Your task to perform on an android device: Go to Reddit.com Image 0: 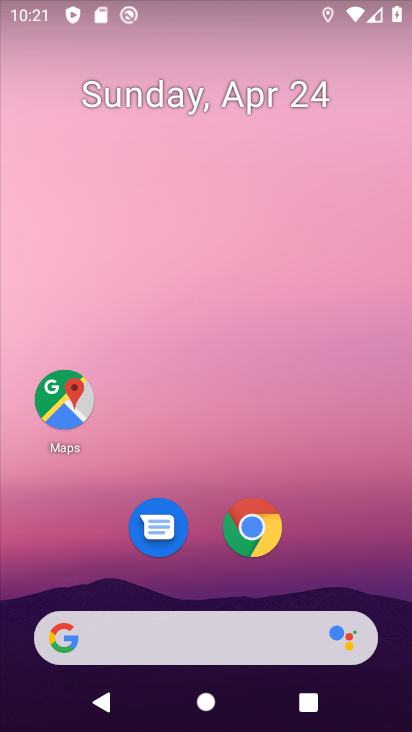
Step 0: click (262, 540)
Your task to perform on an android device: Go to Reddit.com Image 1: 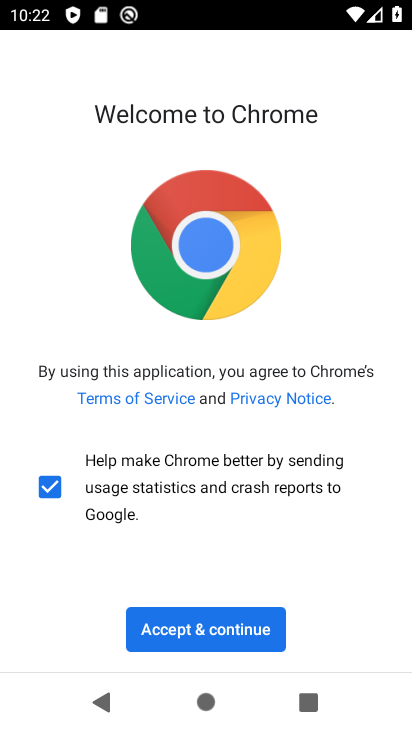
Step 1: click (200, 620)
Your task to perform on an android device: Go to Reddit.com Image 2: 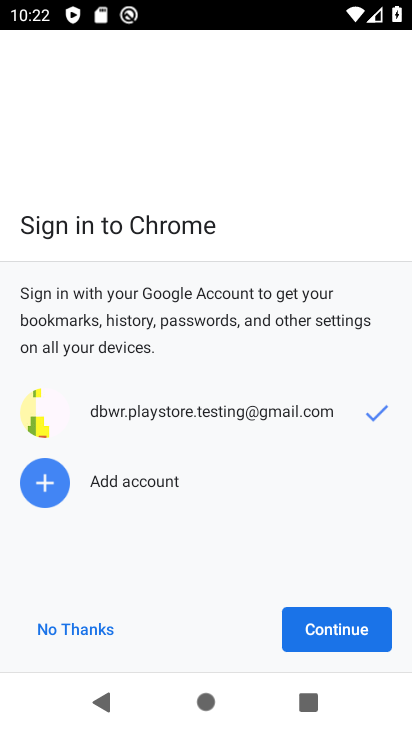
Step 2: click (347, 629)
Your task to perform on an android device: Go to Reddit.com Image 3: 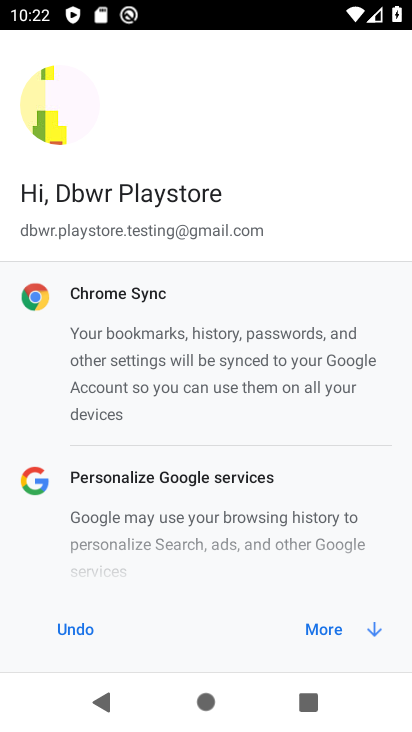
Step 3: click (349, 628)
Your task to perform on an android device: Go to Reddit.com Image 4: 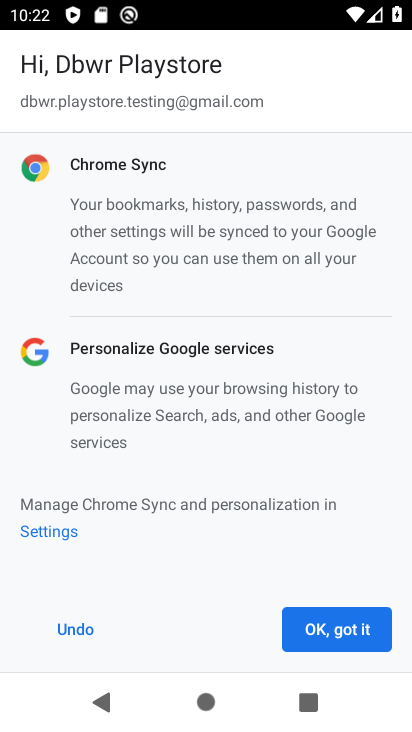
Step 4: click (349, 628)
Your task to perform on an android device: Go to Reddit.com Image 5: 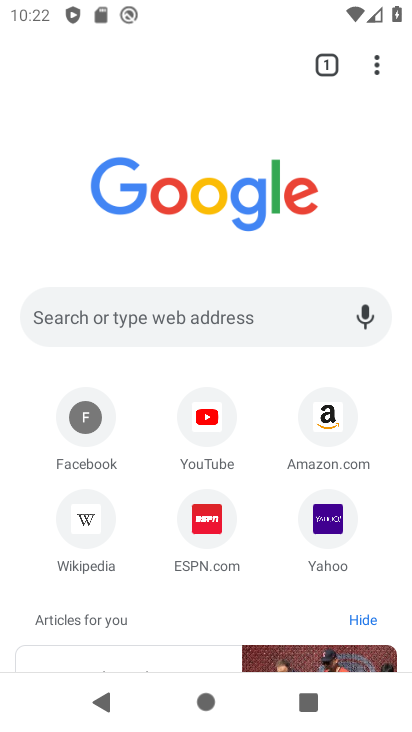
Step 5: click (164, 299)
Your task to perform on an android device: Go to Reddit.com Image 6: 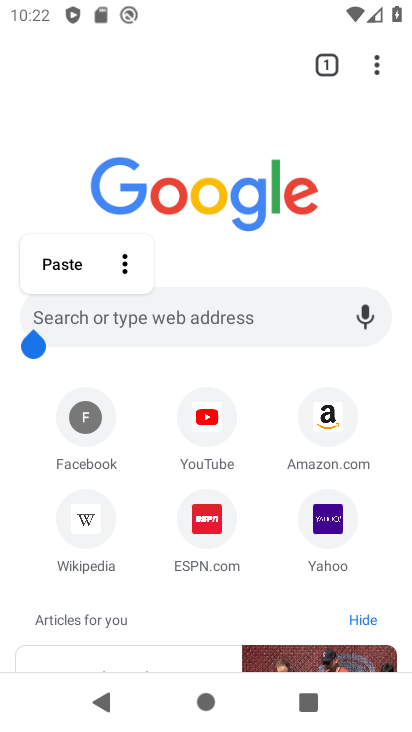
Step 6: click (177, 317)
Your task to perform on an android device: Go to Reddit.com Image 7: 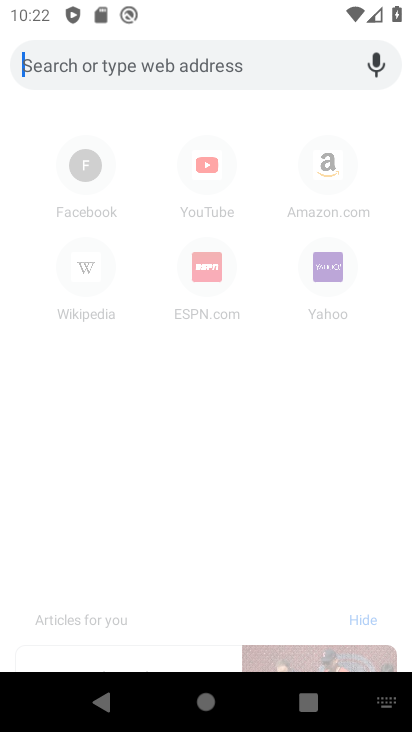
Step 7: type "Reddit.com"
Your task to perform on an android device: Go to Reddit.com Image 8: 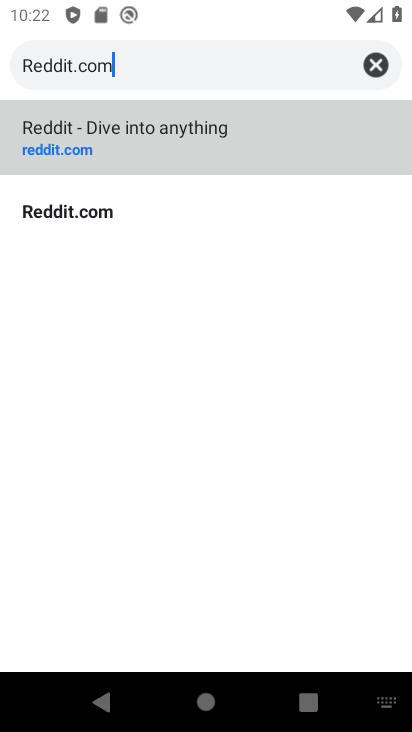
Step 8: click (129, 115)
Your task to perform on an android device: Go to Reddit.com Image 9: 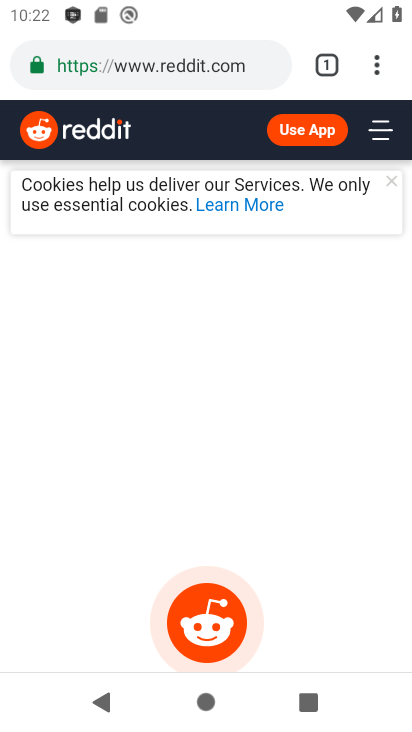
Step 9: task complete